Your task to perform on an android device: Go to sound settings Image 0: 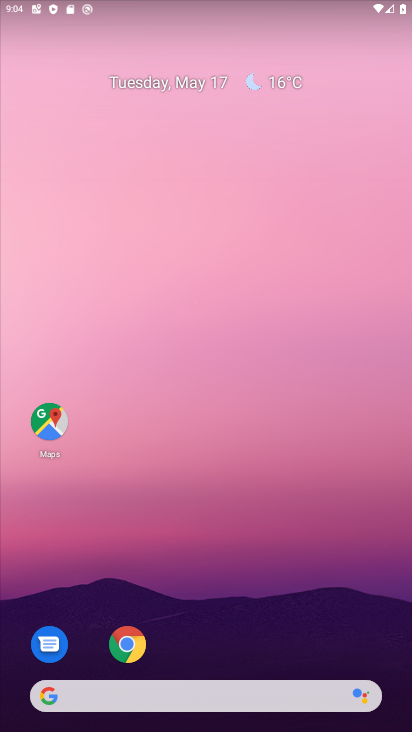
Step 0: drag from (196, 618) to (275, 109)
Your task to perform on an android device: Go to sound settings Image 1: 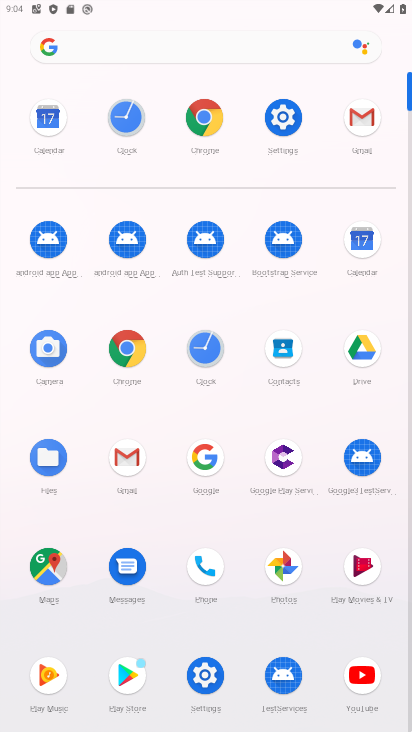
Step 1: click (276, 125)
Your task to perform on an android device: Go to sound settings Image 2: 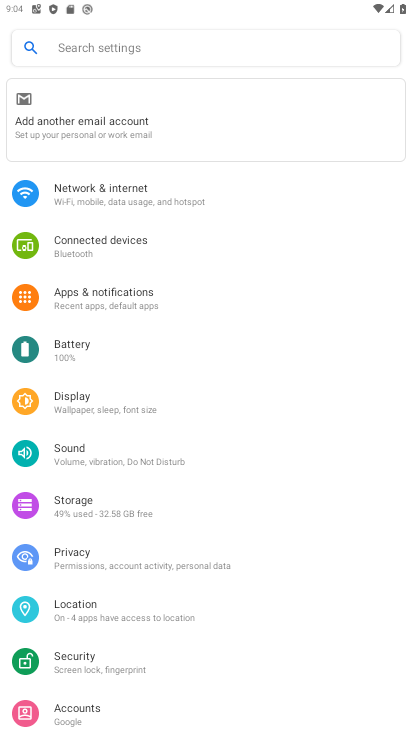
Step 2: click (72, 454)
Your task to perform on an android device: Go to sound settings Image 3: 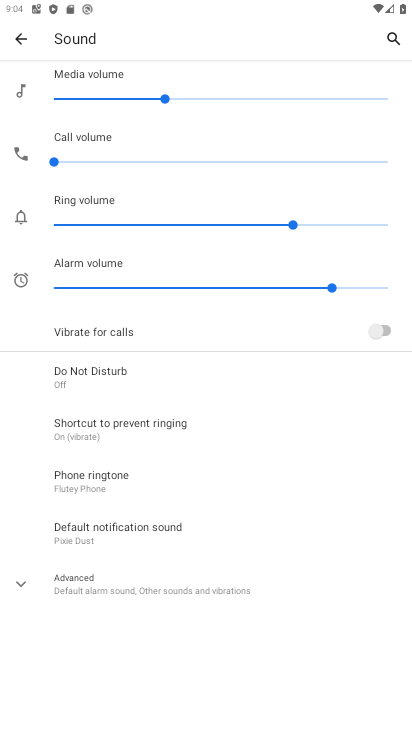
Step 3: task complete